Your task to perform on an android device: Play the last video I watched on Youtube Image 0: 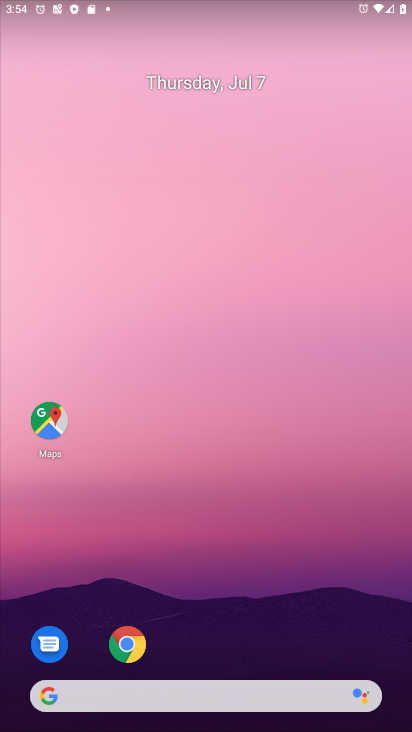
Step 0: drag from (236, 637) to (291, 183)
Your task to perform on an android device: Play the last video I watched on Youtube Image 1: 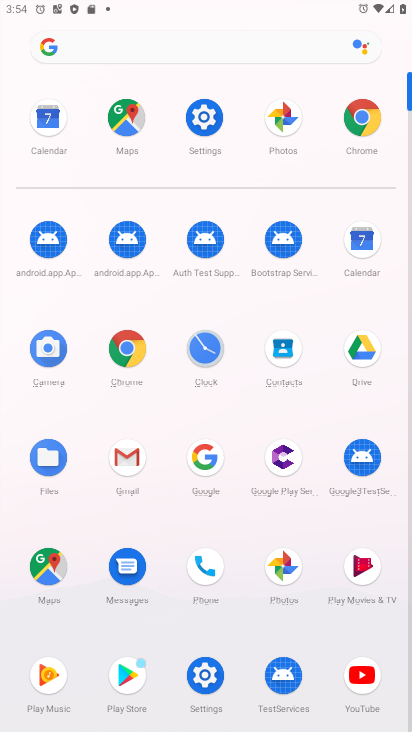
Step 1: click (380, 672)
Your task to perform on an android device: Play the last video I watched on Youtube Image 2: 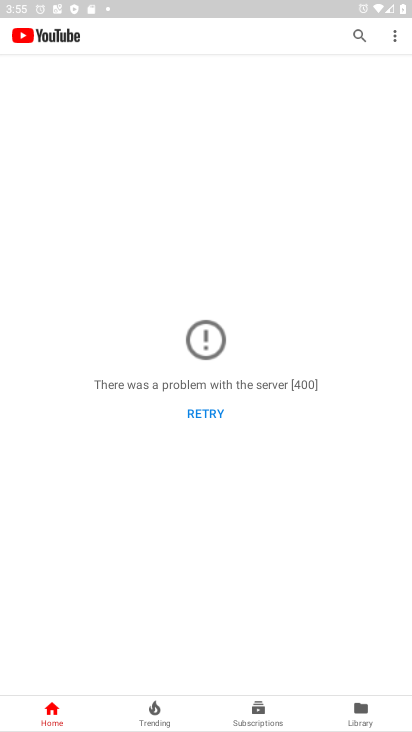
Step 2: task complete